Your task to perform on an android device: delete the emails in spam in the gmail app Image 0: 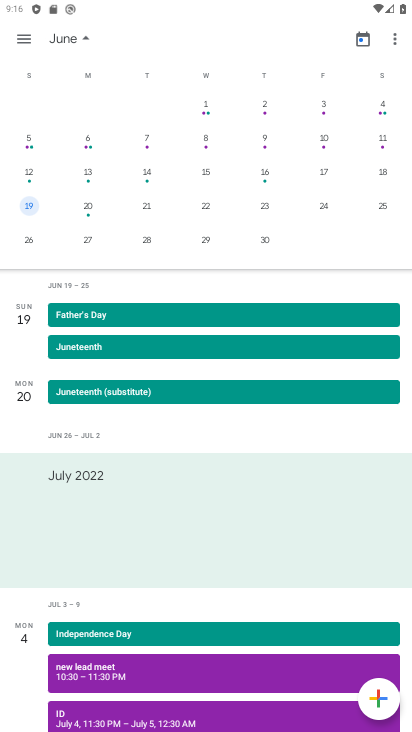
Step 0: press home button
Your task to perform on an android device: delete the emails in spam in the gmail app Image 1: 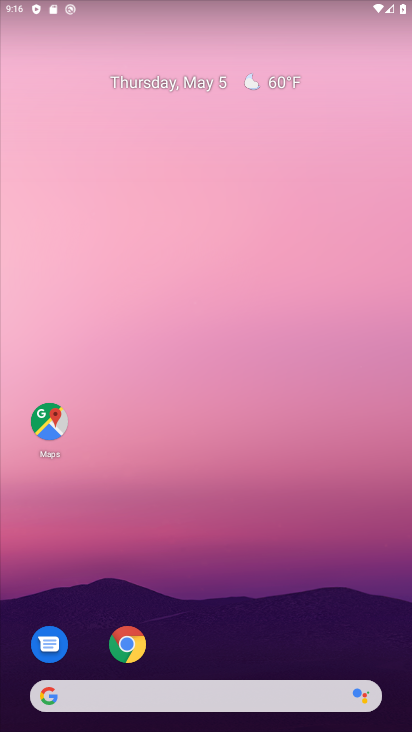
Step 1: drag from (380, 665) to (365, 138)
Your task to perform on an android device: delete the emails in spam in the gmail app Image 2: 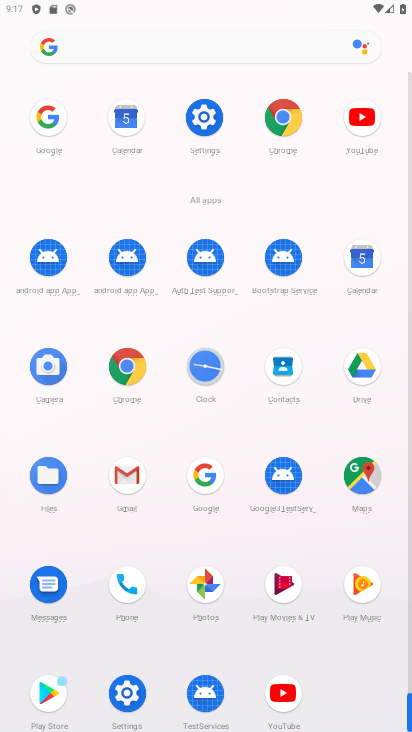
Step 2: click (121, 489)
Your task to perform on an android device: delete the emails in spam in the gmail app Image 3: 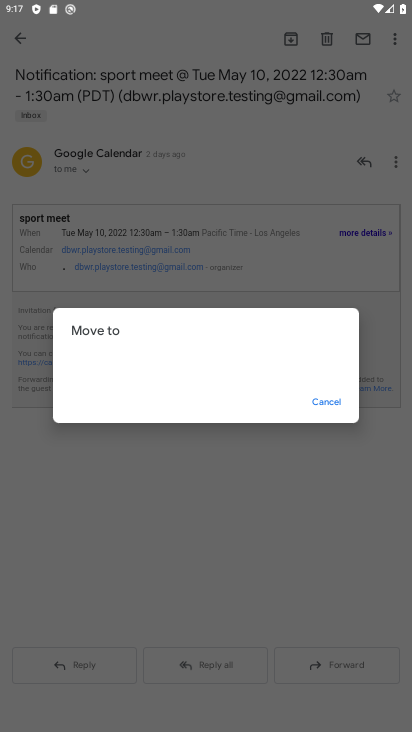
Step 3: click (327, 403)
Your task to perform on an android device: delete the emails in spam in the gmail app Image 4: 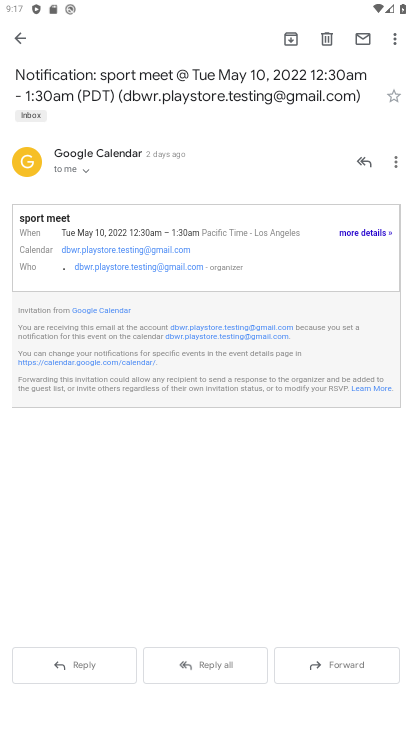
Step 4: click (18, 49)
Your task to perform on an android device: delete the emails in spam in the gmail app Image 5: 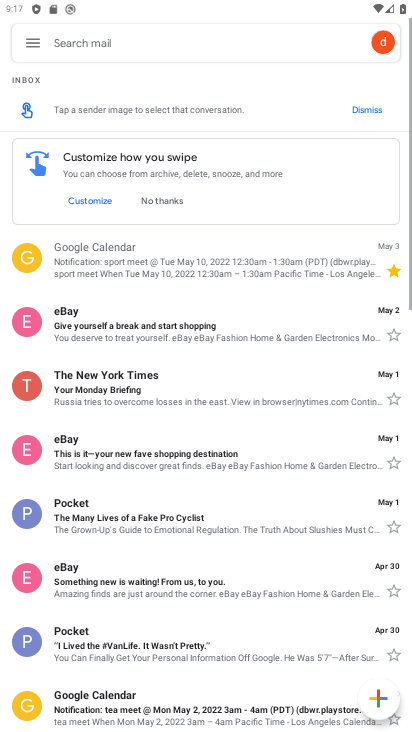
Step 5: click (37, 45)
Your task to perform on an android device: delete the emails in spam in the gmail app Image 6: 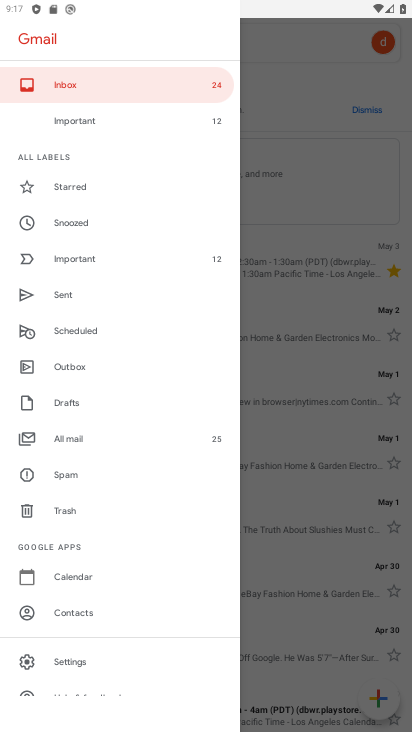
Step 6: click (72, 479)
Your task to perform on an android device: delete the emails in spam in the gmail app Image 7: 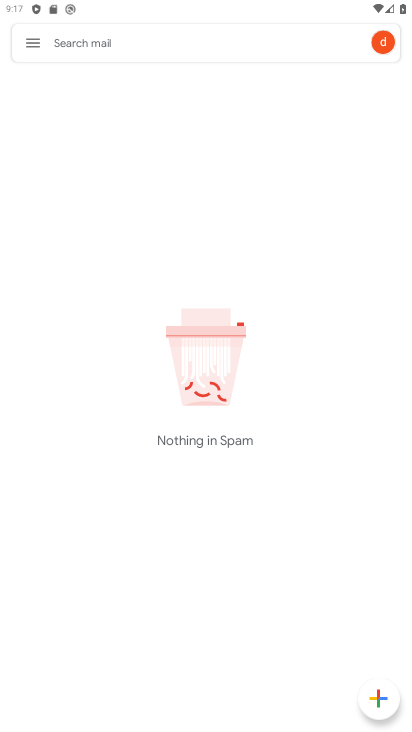
Step 7: task complete